Your task to perform on an android device: star an email in the gmail app Image 0: 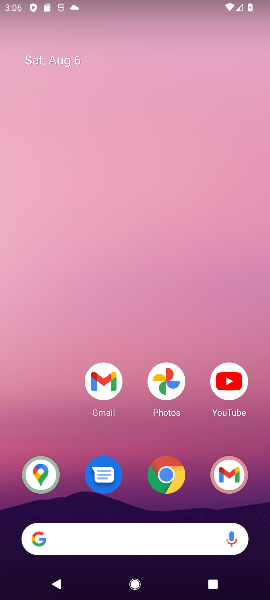
Step 0: click (107, 382)
Your task to perform on an android device: star an email in the gmail app Image 1: 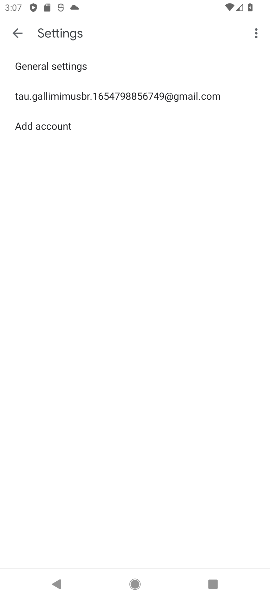
Step 1: click (14, 31)
Your task to perform on an android device: star an email in the gmail app Image 2: 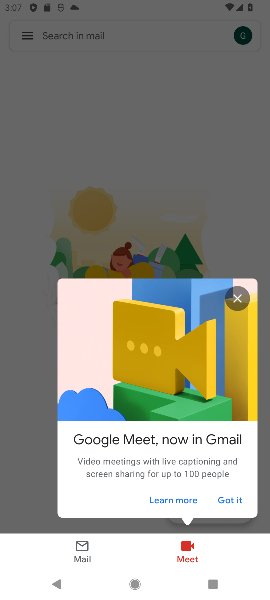
Step 2: click (224, 494)
Your task to perform on an android device: star an email in the gmail app Image 3: 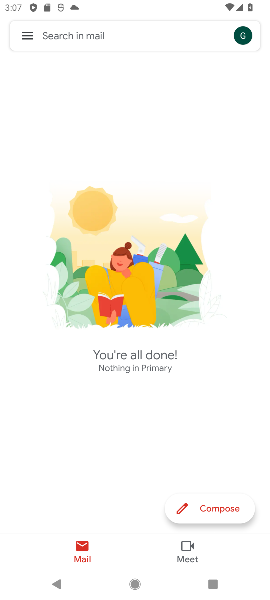
Step 3: click (19, 37)
Your task to perform on an android device: star an email in the gmail app Image 4: 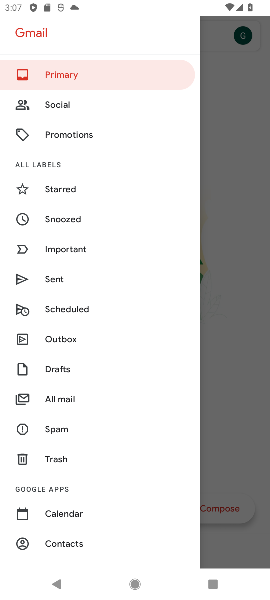
Step 4: click (75, 188)
Your task to perform on an android device: star an email in the gmail app Image 5: 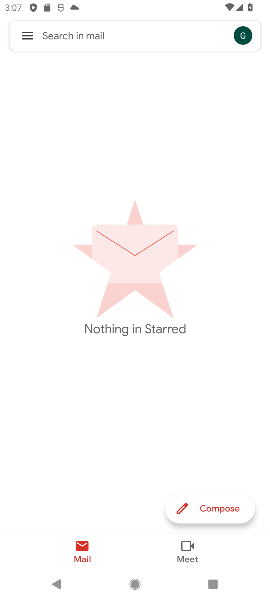
Step 5: task complete